Your task to perform on an android device: See recent photos Image 0: 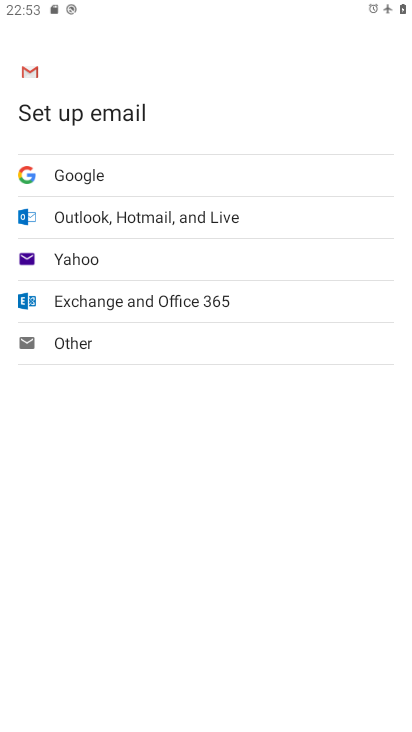
Step 0: press home button
Your task to perform on an android device: See recent photos Image 1: 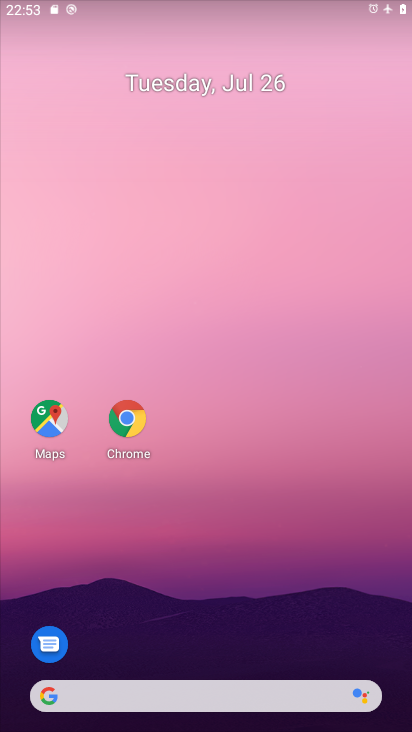
Step 1: drag from (182, 652) to (227, 193)
Your task to perform on an android device: See recent photos Image 2: 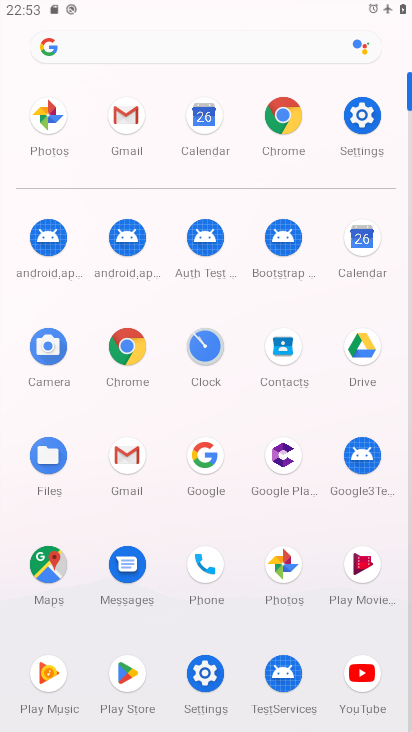
Step 2: click (271, 567)
Your task to perform on an android device: See recent photos Image 3: 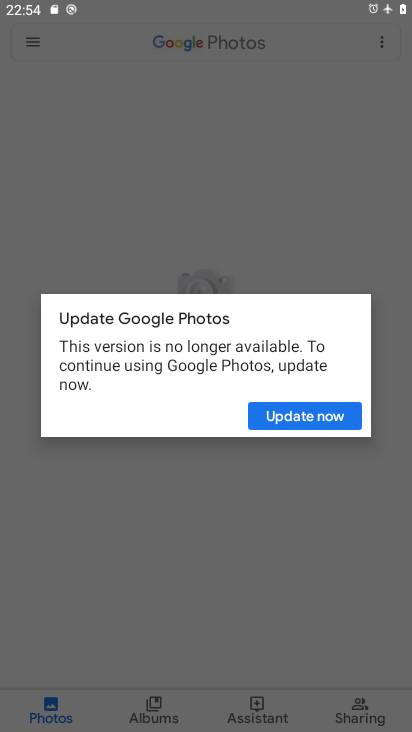
Step 3: task complete